Your task to perform on an android device: toggle translation in the chrome app Image 0: 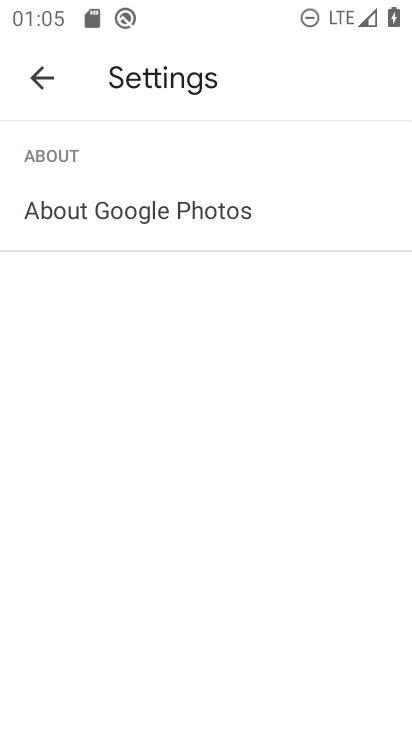
Step 0: press home button
Your task to perform on an android device: toggle translation in the chrome app Image 1: 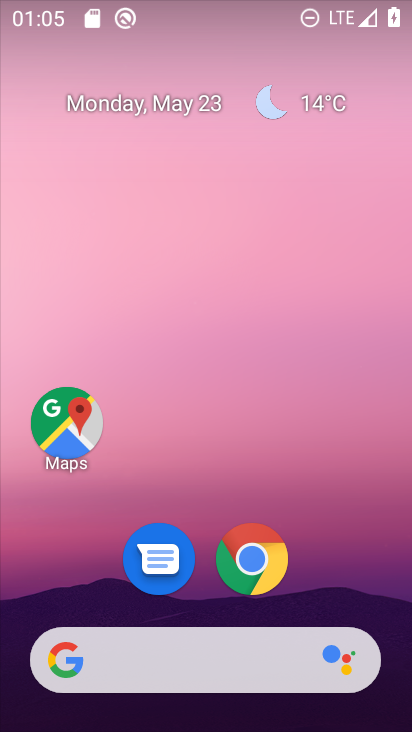
Step 1: click (259, 559)
Your task to perform on an android device: toggle translation in the chrome app Image 2: 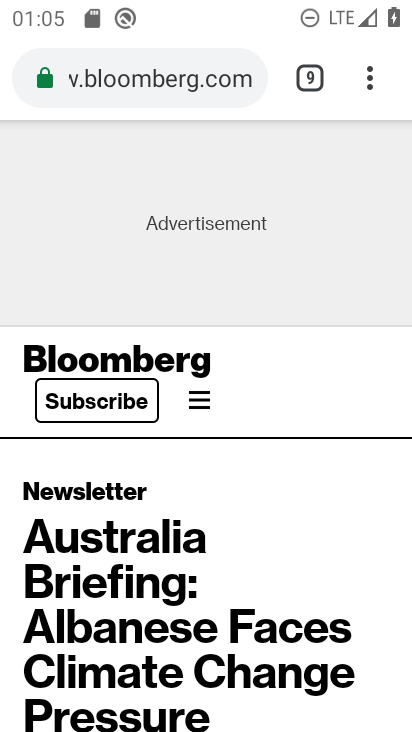
Step 2: click (375, 72)
Your task to perform on an android device: toggle translation in the chrome app Image 3: 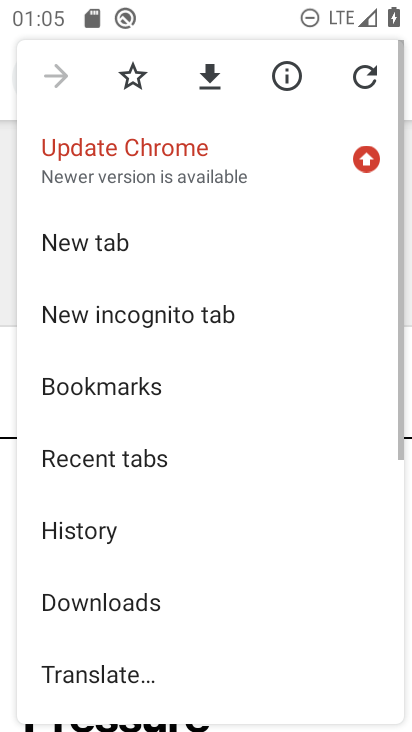
Step 3: drag from (173, 553) to (187, 116)
Your task to perform on an android device: toggle translation in the chrome app Image 4: 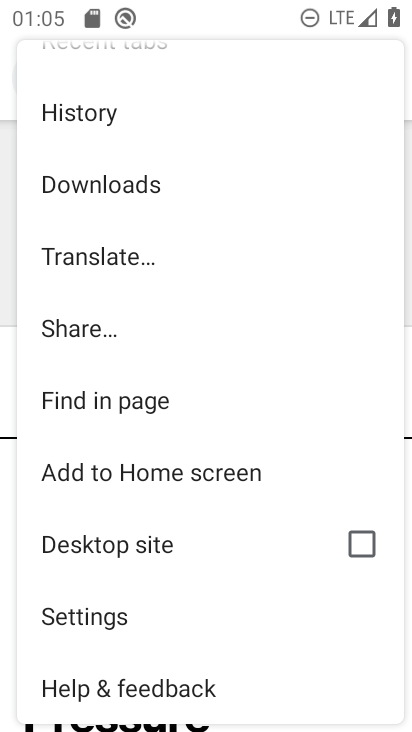
Step 4: click (112, 620)
Your task to perform on an android device: toggle translation in the chrome app Image 5: 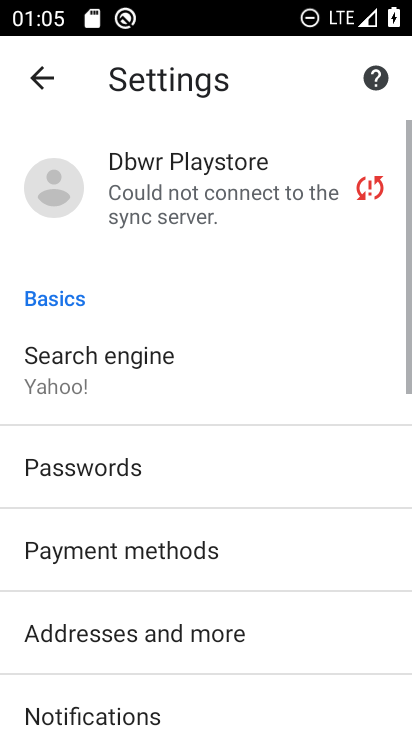
Step 5: drag from (239, 616) to (223, 36)
Your task to perform on an android device: toggle translation in the chrome app Image 6: 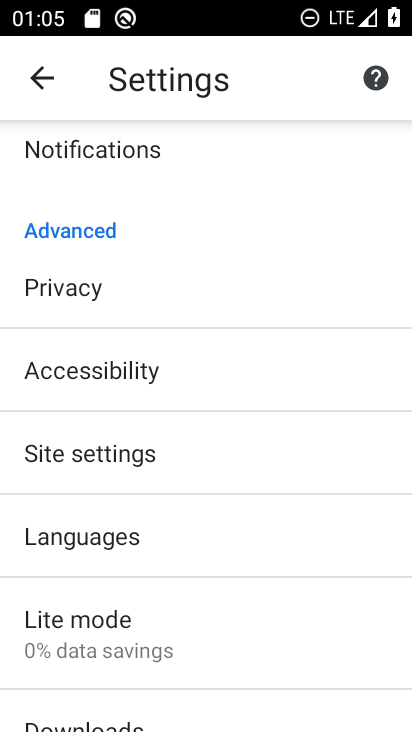
Step 6: click (96, 537)
Your task to perform on an android device: toggle translation in the chrome app Image 7: 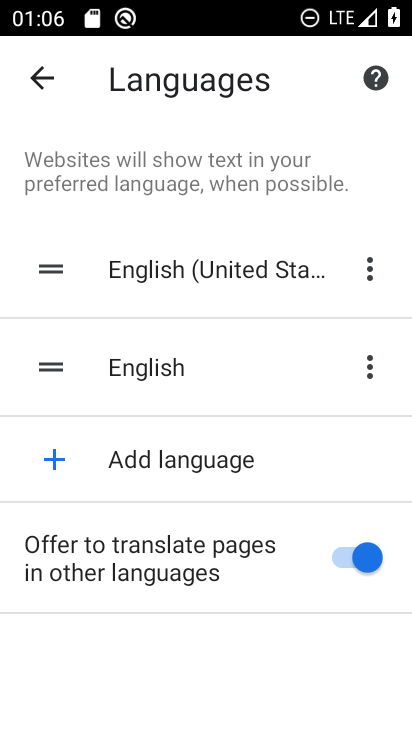
Step 7: click (371, 562)
Your task to perform on an android device: toggle translation in the chrome app Image 8: 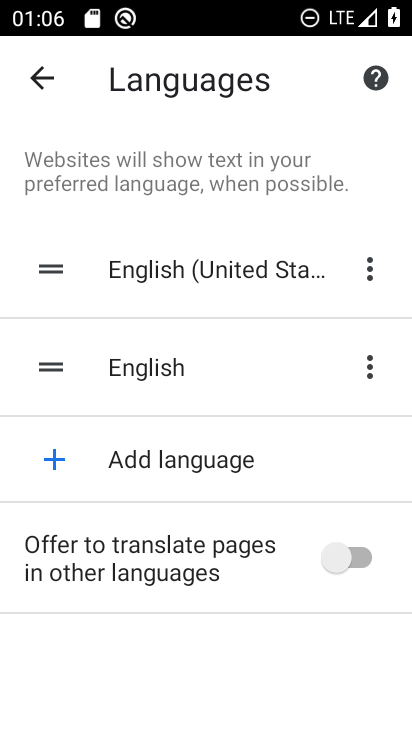
Step 8: task complete